Your task to perform on an android device: turn vacation reply on in the gmail app Image 0: 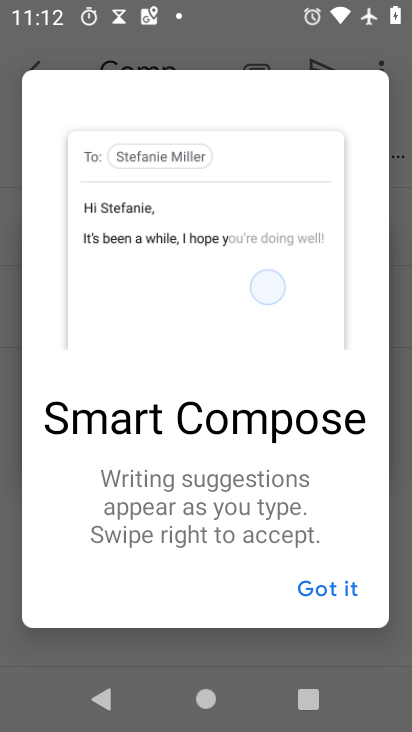
Step 0: press back button
Your task to perform on an android device: turn vacation reply on in the gmail app Image 1: 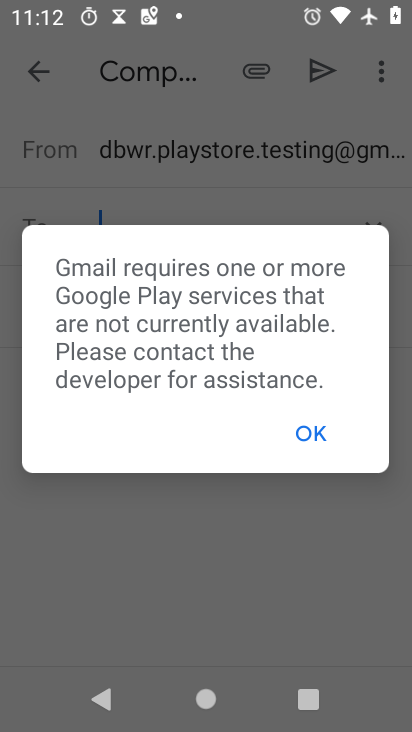
Step 1: press home button
Your task to perform on an android device: turn vacation reply on in the gmail app Image 2: 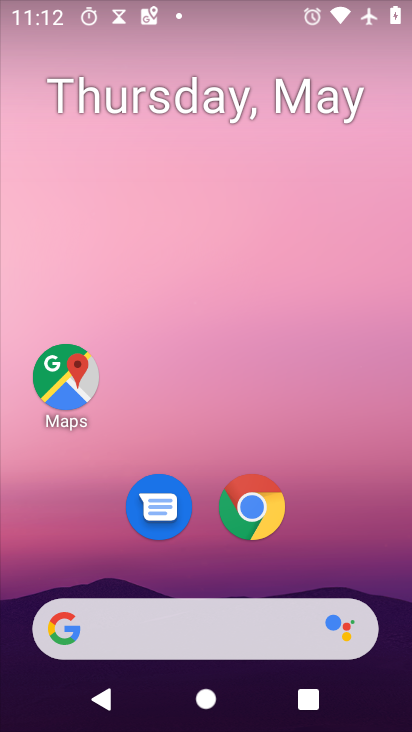
Step 2: drag from (341, 518) to (298, 31)
Your task to perform on an android device: turn vacation reply on in the gmail app Image 3: 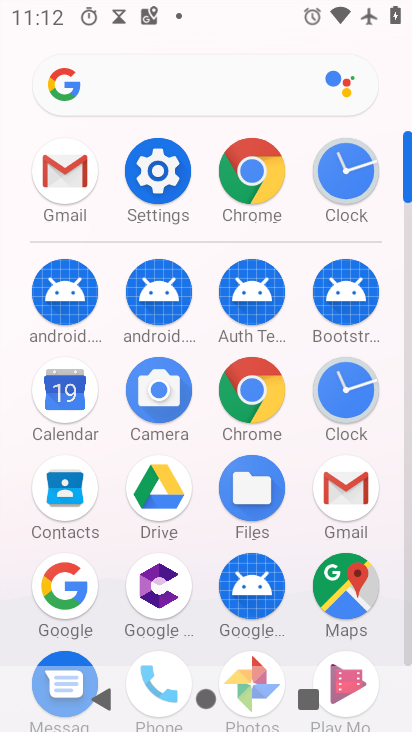
Step 3: click (347, 481)
Your task to perform on an android device: turn vacation reply on in the gmail app Image 4: 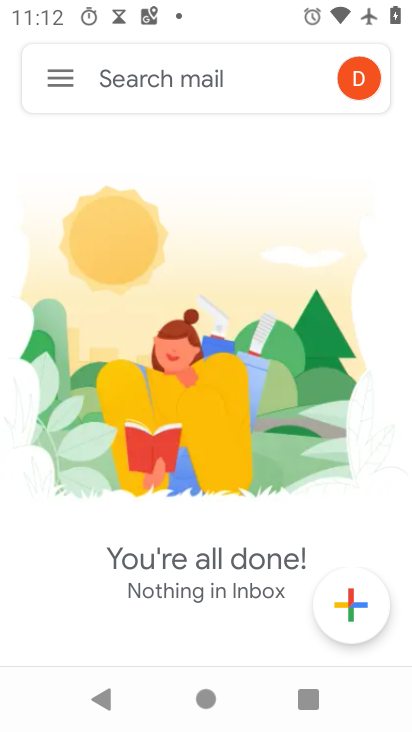
Step 4: click (45, 65)
Your task to perform on an android device: turn vacation reply on in the gmail app Image 5: 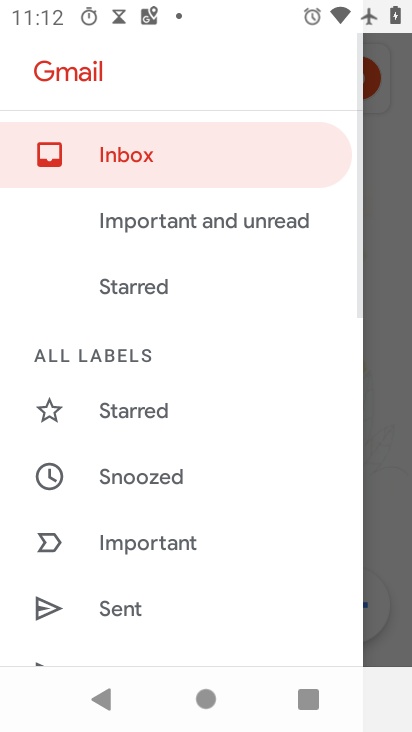
Step 5: drag from (181, 553) to (191, 161)
Your task to perform on an android device: turn vacation reply on in the gmail app Image 6: 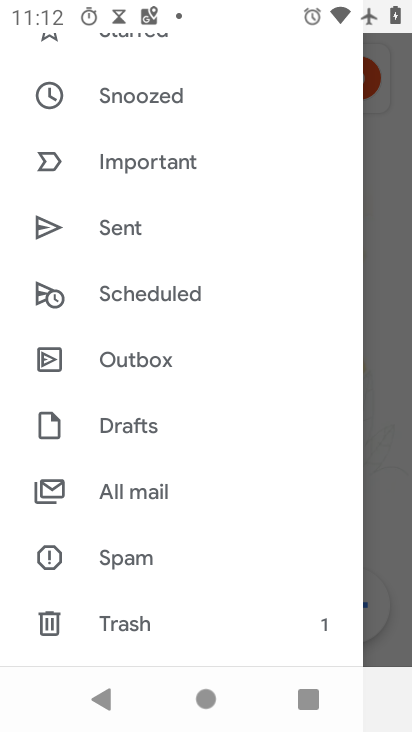
Step 6: drag from (172, 592) to (190, 130)
Your task to perform on an android device: turn vacation reply on in the gmail app Image 7: 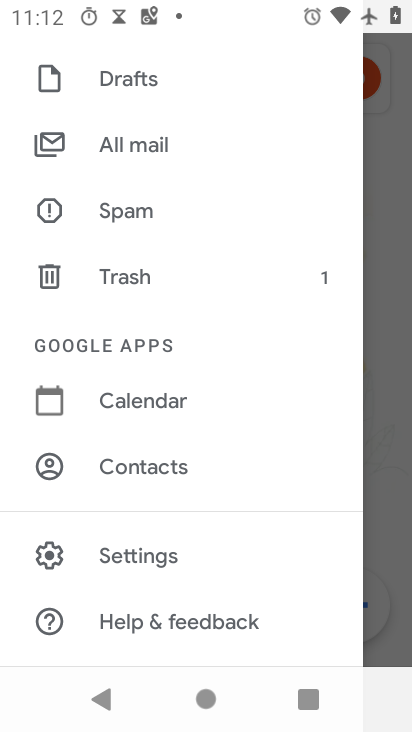
Step 7: click (136, 554)
Your task to perform on an android device: turn vacation reply on in the gmail app Image 8: 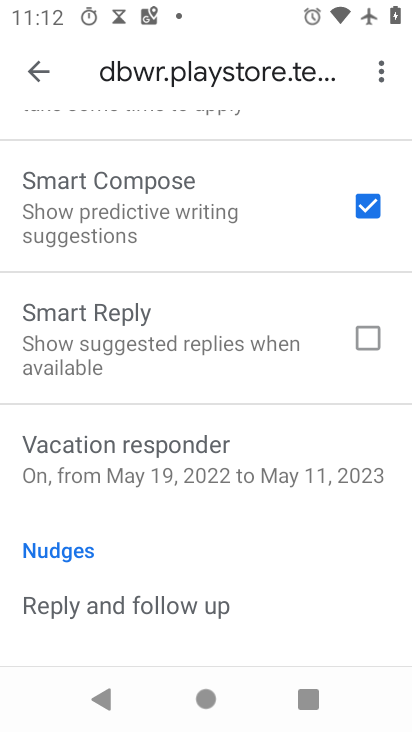
Step 8: click (144, 442)
Your task to perform on an android device: turn vacation reply on in the gmail app Image 9: 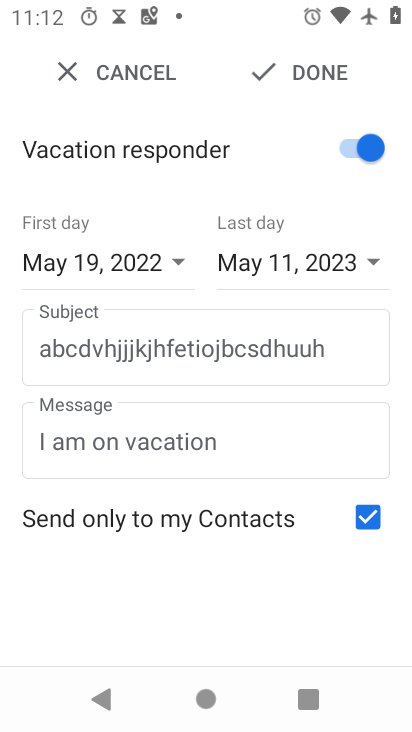
Step 9: click (305, 74)
Your task to perform on an android device: turn vacation reply on in the gmail app Image 10: 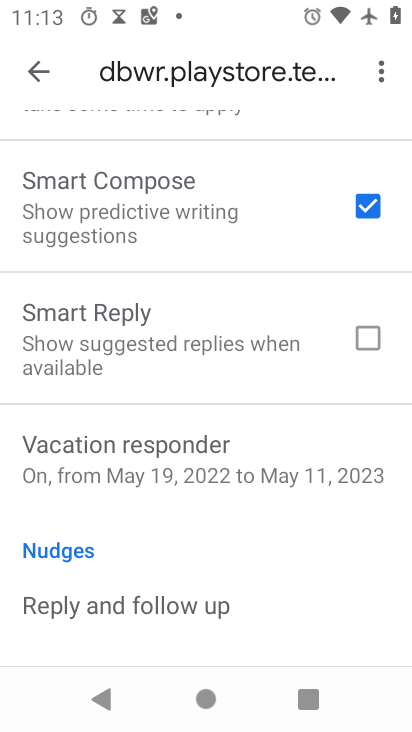
Step 10: task complete